Your task to perform on an android device: open device folders in google photos Image 0: 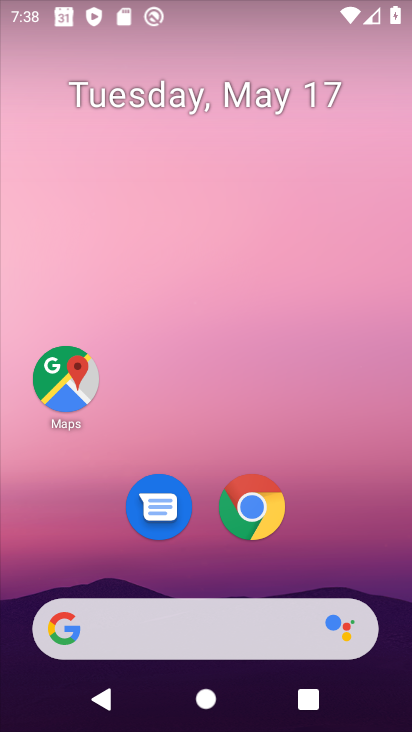
Step 0: drag from (383, 584) to (371, 0)
Your task to perform on an android device: open device folders in google photos Image 1: 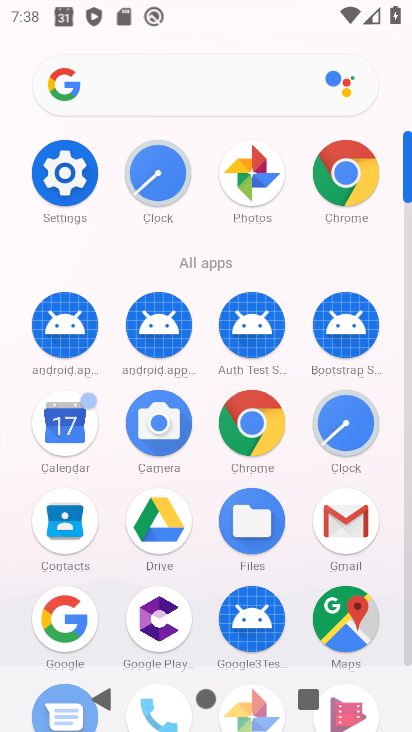
Step 1: click (254, 175)
Your task to perform on an android device: open device folders in google photos Image 2: 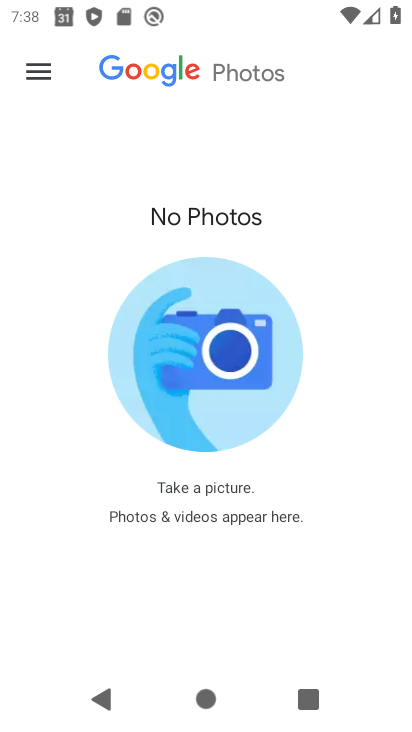
Step 2: click (207, 384)
Your task to perform on an android device: open device folders in google photos Image 3: 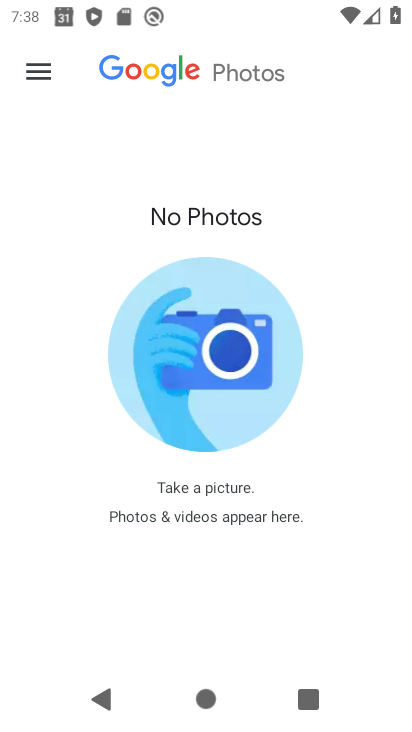
Step 3: click (31, 80)
Your task to perform on an android device: open device folders in google photos Image 4: 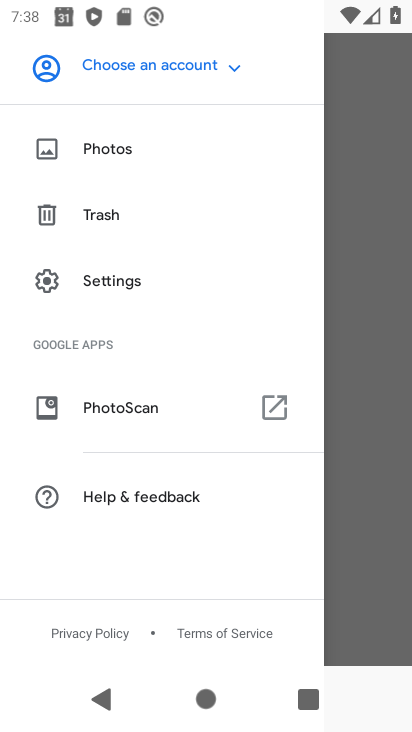
Step 4: task complete